Your task to perform on an android device: open sync settings in chrome Image 0: 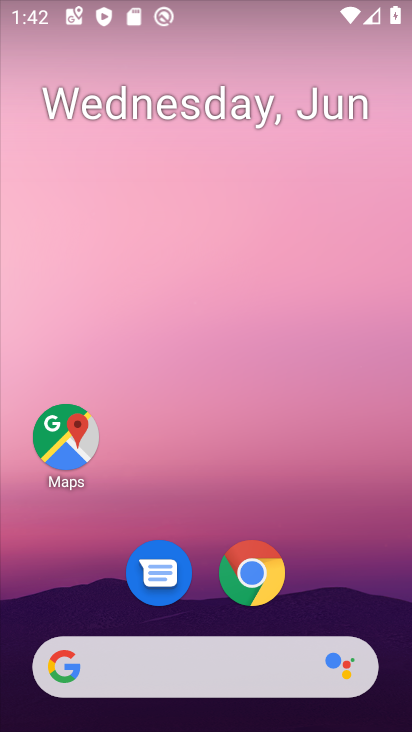
Step 0: drag from (388, 579) to (339, 182)
Your task to perform on an android device: open sync settings in chrome Image 1: 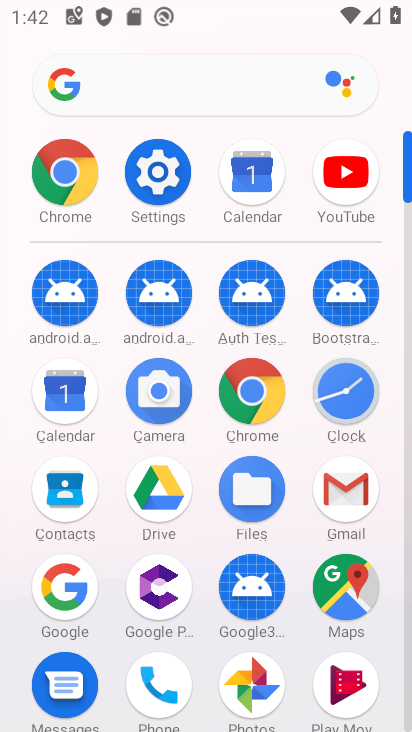
Step 1: click (267, 408)
Your task to perform on an android device: open sync settings in chrome Image 2: 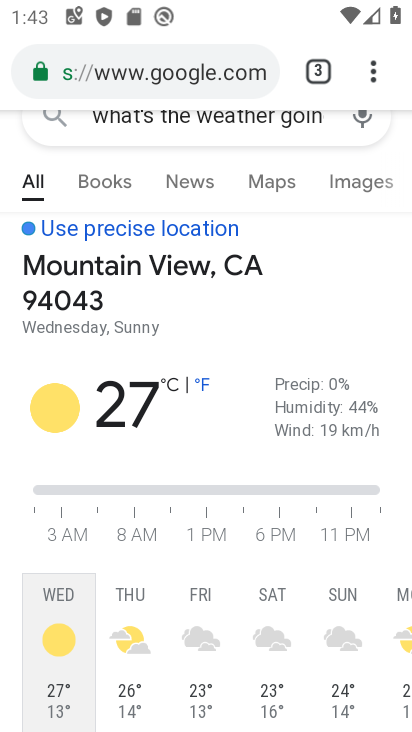
Step 2: drag from (375, 88) to (155, 570)
Your task to perform on an android device: open sync settings in chrome Image 3: 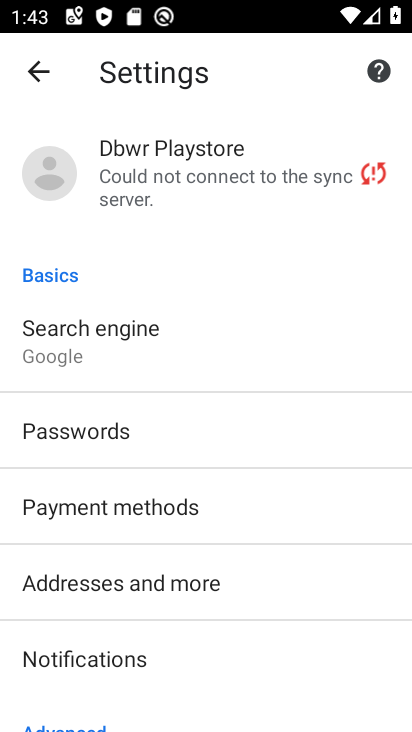
Step 3: drag from (247, 659) to (247, 315)
Your task to perform on an android device: open sync settings in chrome Image 4: 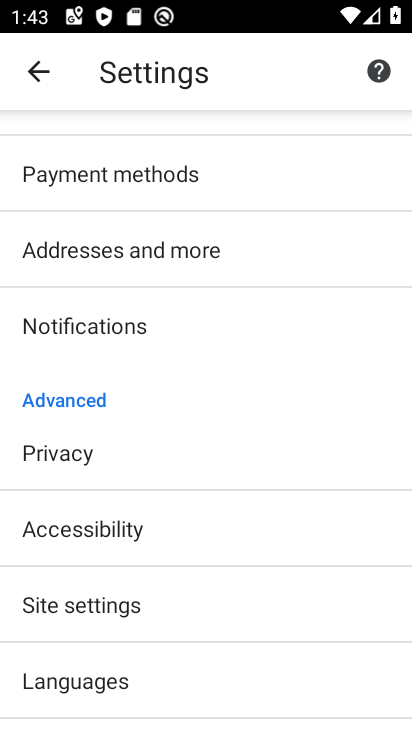
Step 4: click (171, 602)
Your task to perform on an android device: open sync settings in chrome Image 5: 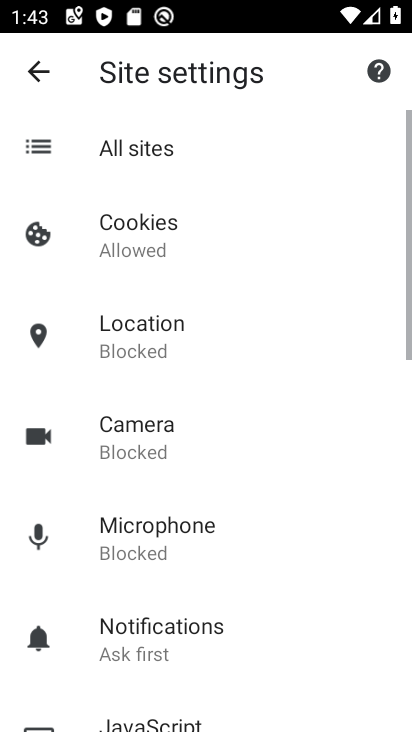
Step 5: drag from (246, 636) to (228, 409)
Your task to perform on an android device: open sync settings in chrome Image 6: 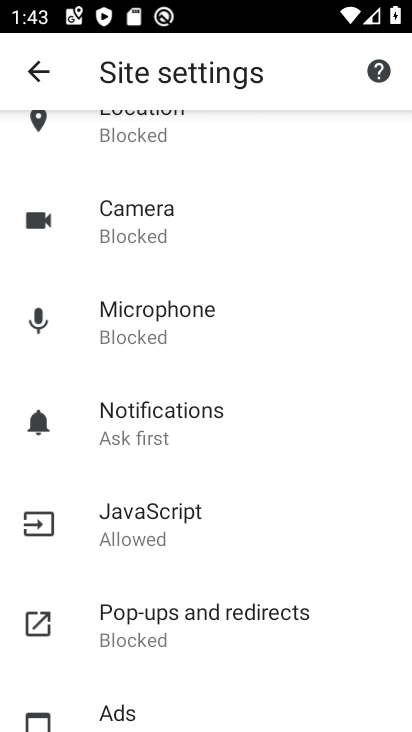
Step 6: drag from (227, 641) to (223, 432)
Your task to perform on an android device: open sync settings in chrome Image 7: 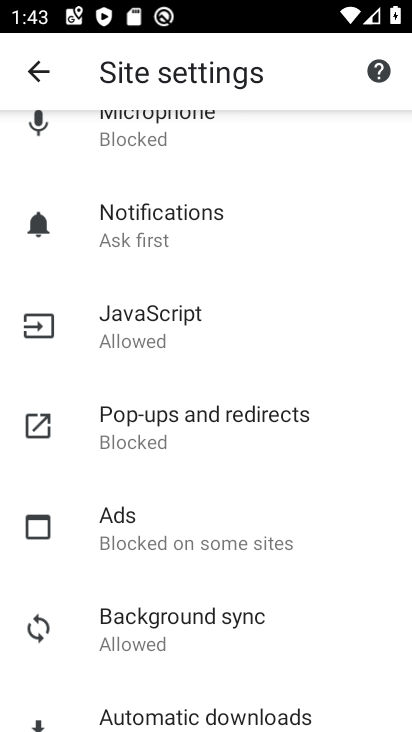
Step 7: drag from (236, 334) to (232, 516)
Your task to perform on an android device: open sync settings in chrome Image 8: 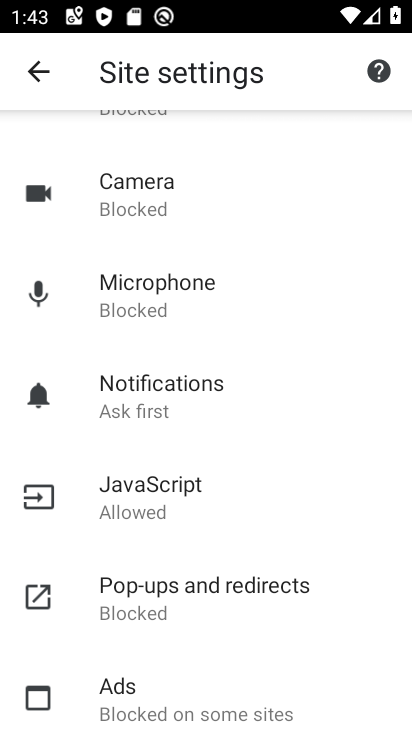
Step 8: drag from (256, 527) to (261, 340)
Your task to perform on an android device: open sync settings in chrome Image 9: 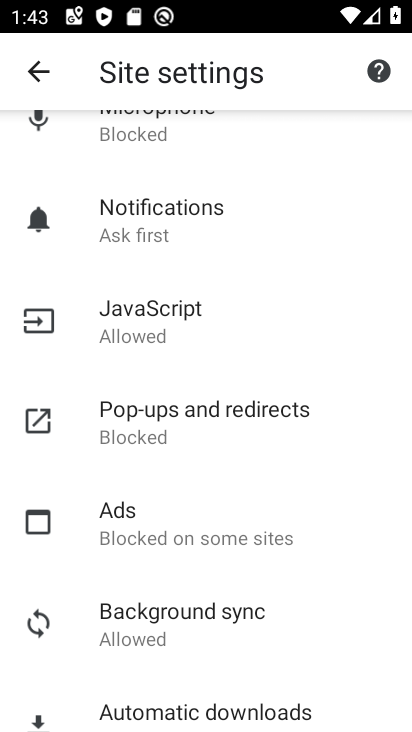
Step 9: drag from (266, 640) to (260, 503)
Your task to perform on an android device: open sync settings in chrome Image 10: 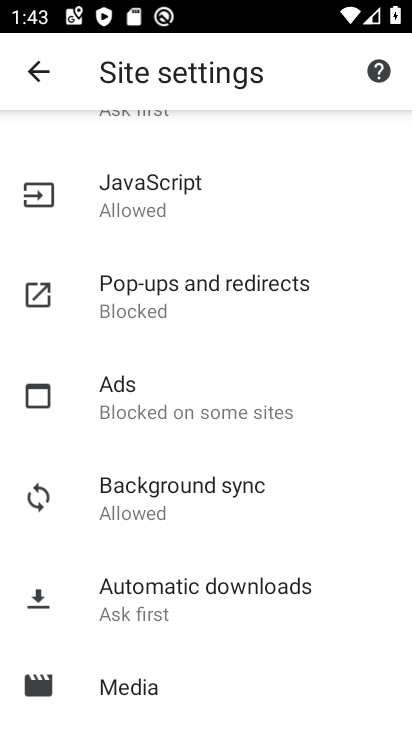
Step 10: click (239, 499)
Your task to perform on an android device: open sync settings in chrome Image 11: 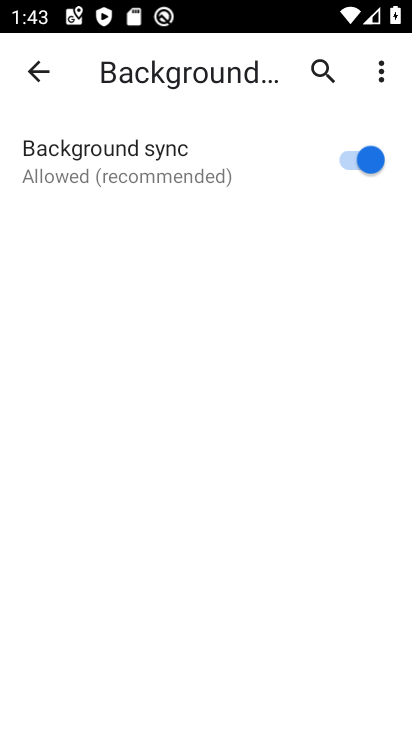
Step 11: task complete